Your task to perform on an android device: change alarm snooze length Image 0: 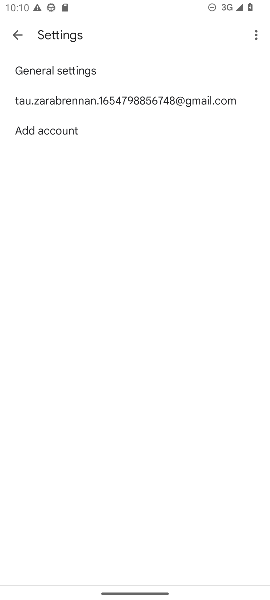
Step 0: press home button
Your task to perform on an android device: change alarm snooze length Image 1: 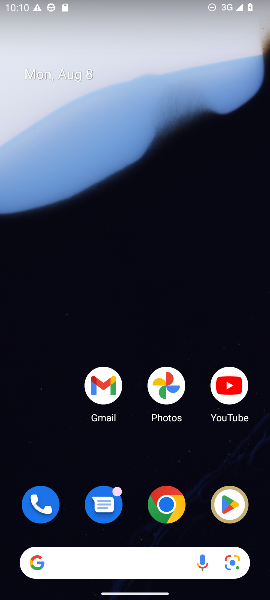
Step 1: drag from (123, 462) to (145, 71)
Your task to perform on an android device: change alarm snooze length Image 2: 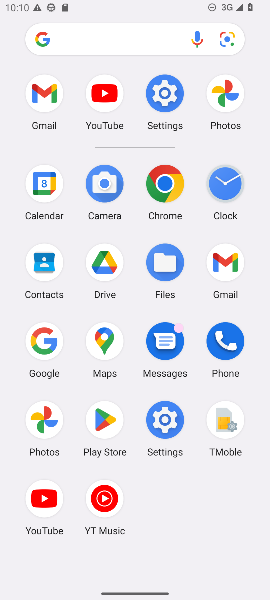
Step 2: click (223, 187)
Your task to perform on an android device: change alarm snooze length Image 3: 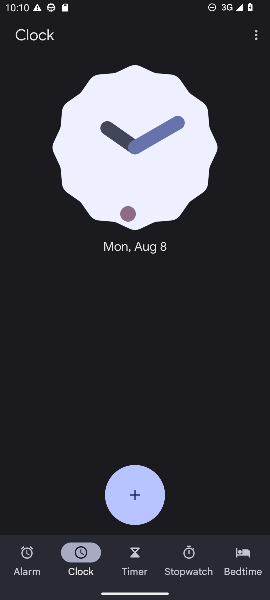
Step 3: click (257, 30)
Your task to perform on an android device: change alarm snooze length Image 4: 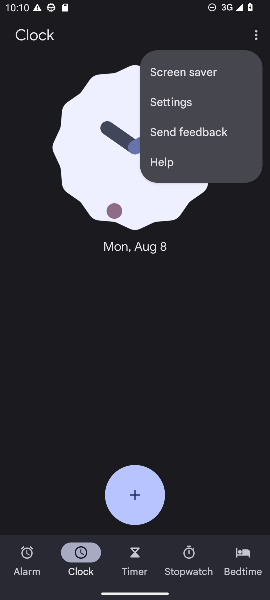
Step 4: click (186, 98)
Your task to perform on an android device: change alarm snooze length Image 5: 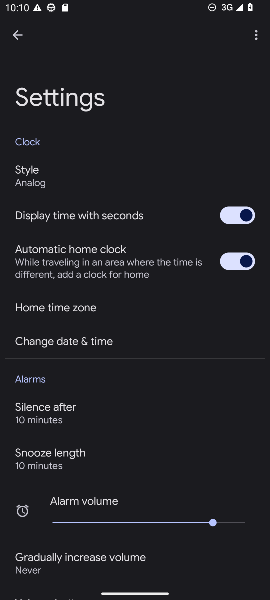
Step 5: click (62, 464)
Your task to perform on an android device: change alarm snooze length Image 6: 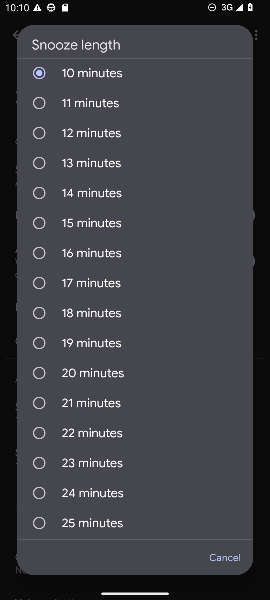
Step 6: click (62, 231)
Your task to perform on an android device: change alarm snooze length Image 7: 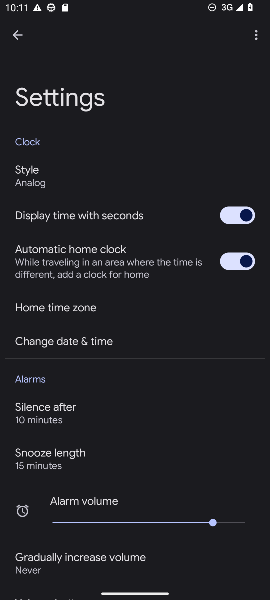
Step 7: task complete